Your task to perform on an android device: Open the stopwatch Image 0: 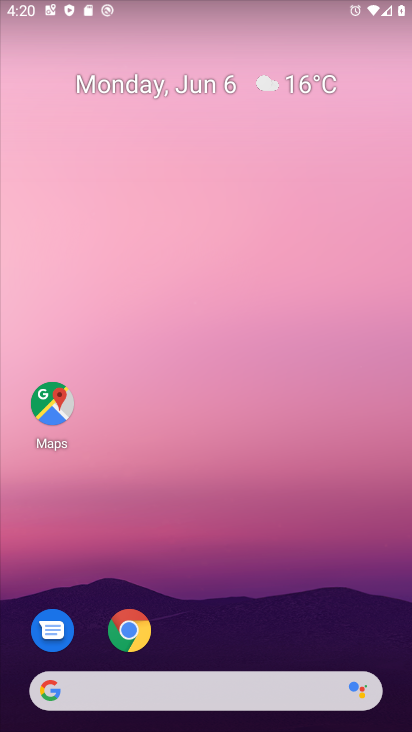
Step 0: drag from (325, 524) to (226, 67)
Your task to perform on an android device: Open the stopwatch Image 1: 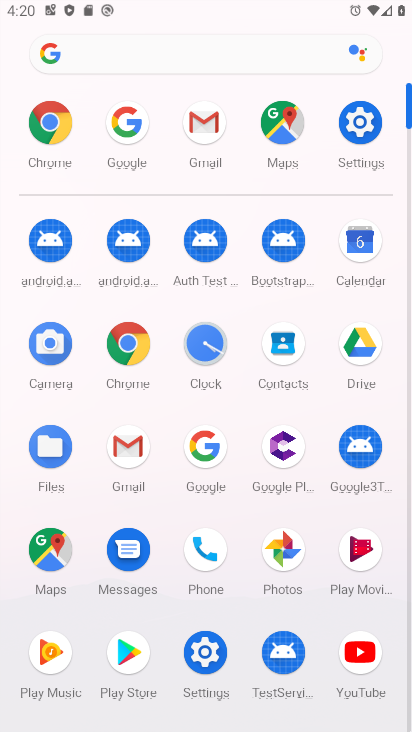
Step 1: click (211, 347)
Your task to perform on an android device: Open the stopwatch Image 2: 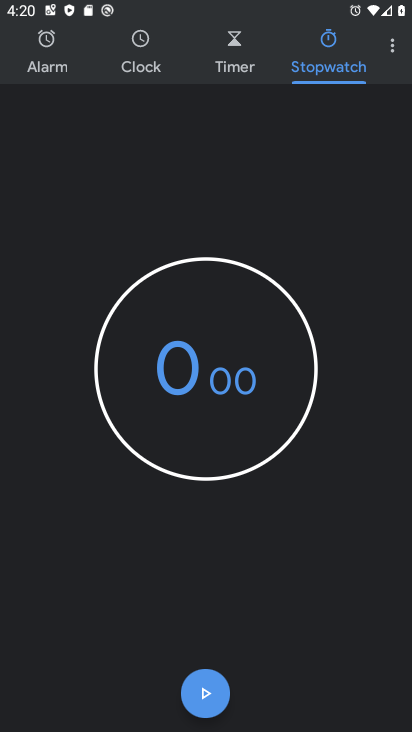
Step 2: task complete